Your task to perform on an android device: change the clock display to analog Image 0: 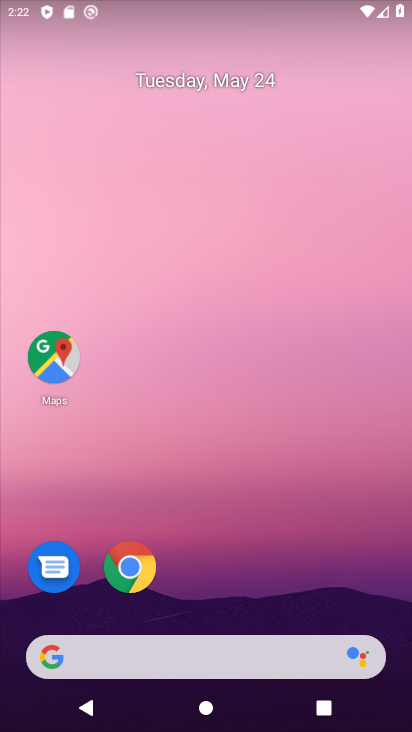
Step 0: drag from (230, 567) to (280, 129)
Your task to perform on an android device: change the clock display to analog Image 1: 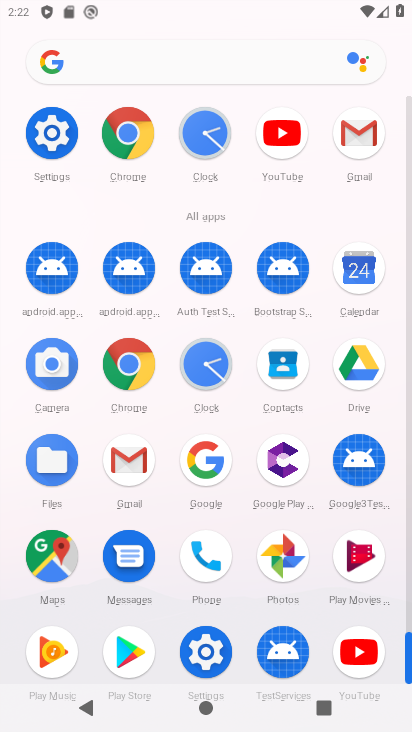
Step 1: click (206, 357)
Your task to perform on an android device: change the clock display to analog Image 2: 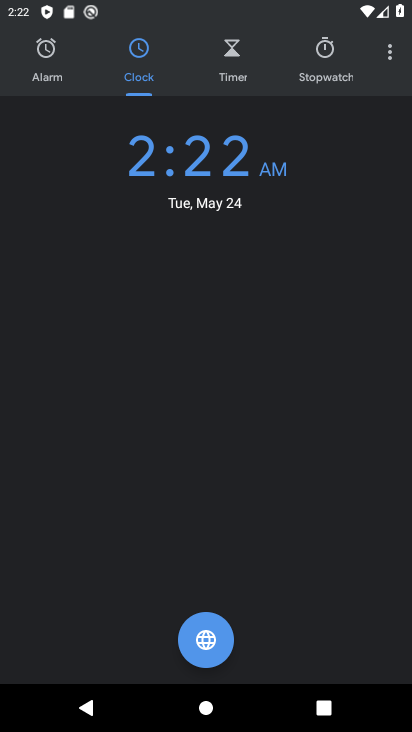
Step 2: click (392, 45)
Your task to perform on an android device: change the clock display to analog Image 3: 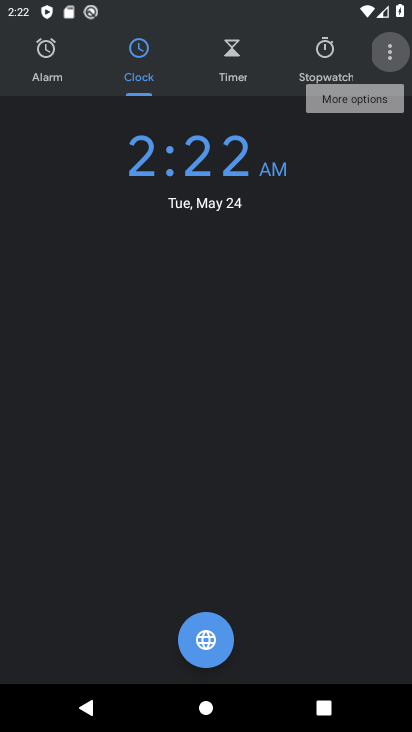
Step 3: click (392, 45)
Your task to perform on an android device: change the clock display to analog Image 4: 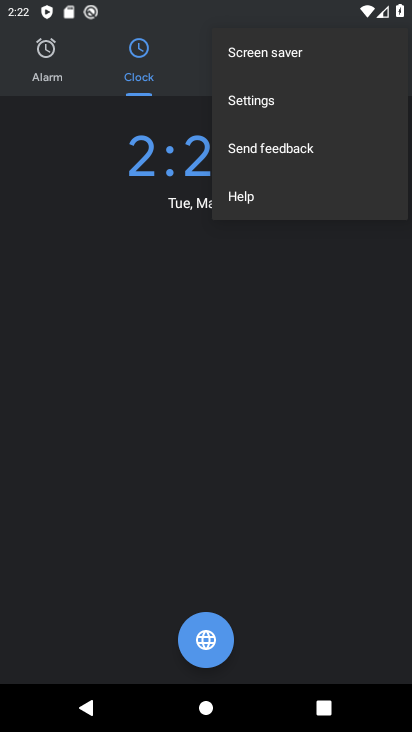
Step 4: click (242, 99)
Your task to perform on an android device: change the clock display to analog Image 5: 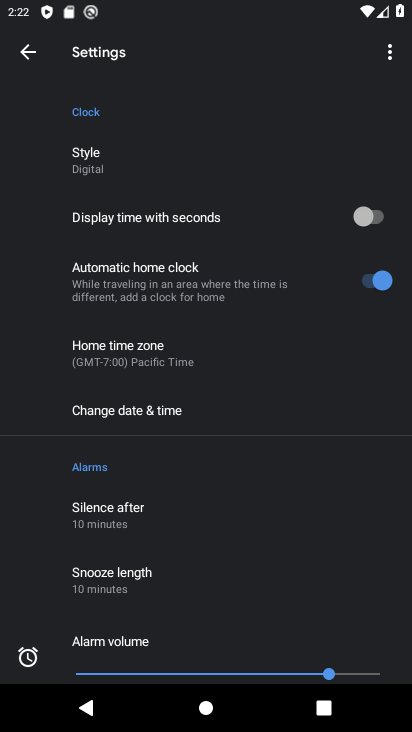
Step 5: click (92, 154)
Your task to perform on an android device: change the clock display to analog Image 6: 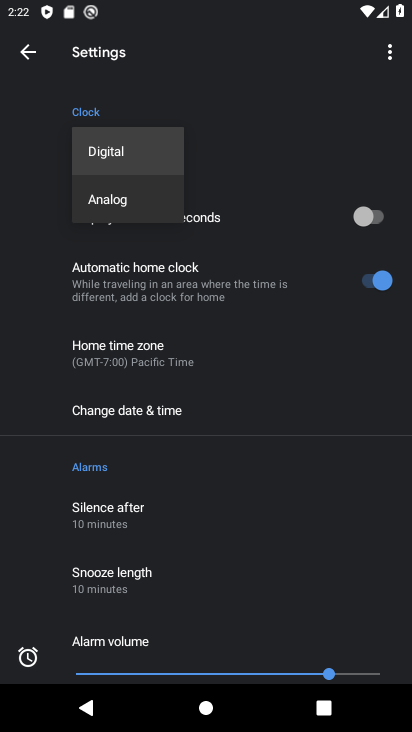
Step 6: click (109, 194)
Your task to perform on an android device: change the clock display to analog Image 7: 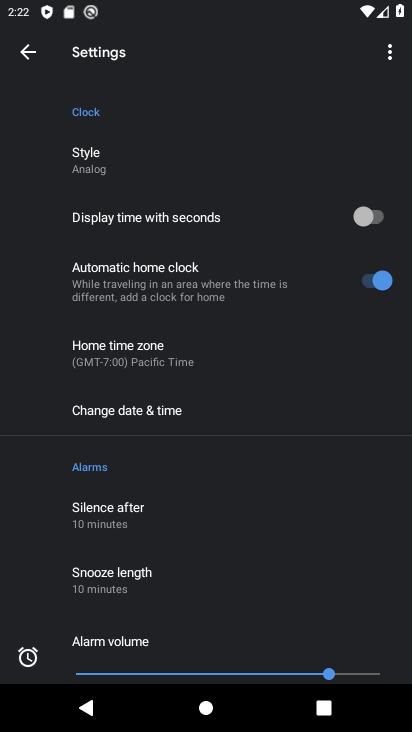
Step 7: task complete